Your task to perform on an android device: delete location history Image 0: 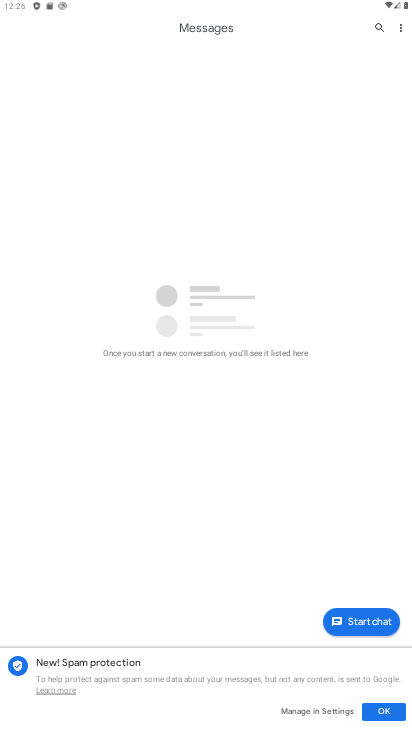
Step 0: press home button
Your task to perform on an android device: delete location history Image 1: 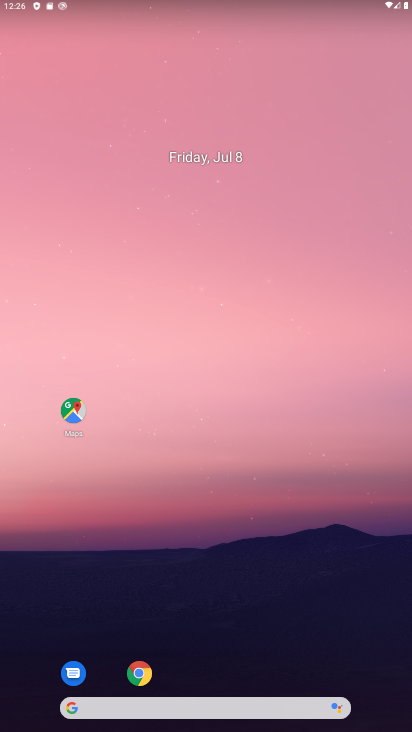
Step 1: drag from (290, 342) to (397, 112)
Your task to perform on an android device: delete location history Image 2: 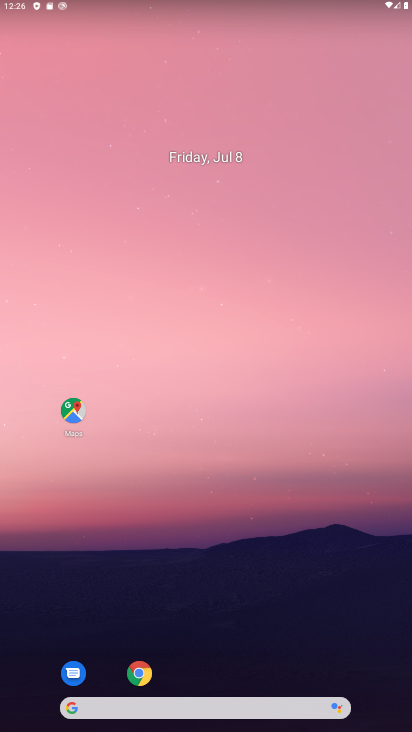
Step 2: drag from (167, 694) to (346, 131)
Your task to perform on an android device: delete location history Image 3: 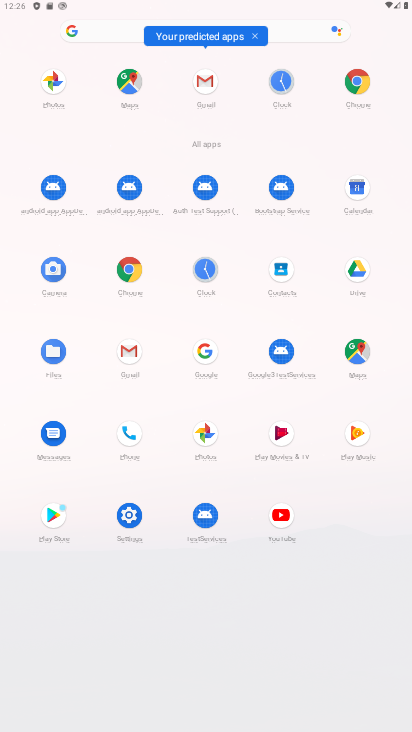
Step 3: click (136, 521)
Your task to perform on an android device: delete location history Image 4: 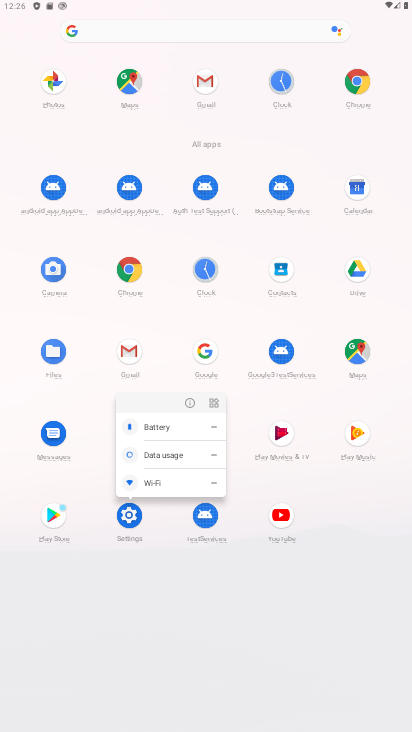
Step 4: click (131, 514)
Your task to perform on an android device: delete location history Image 5: 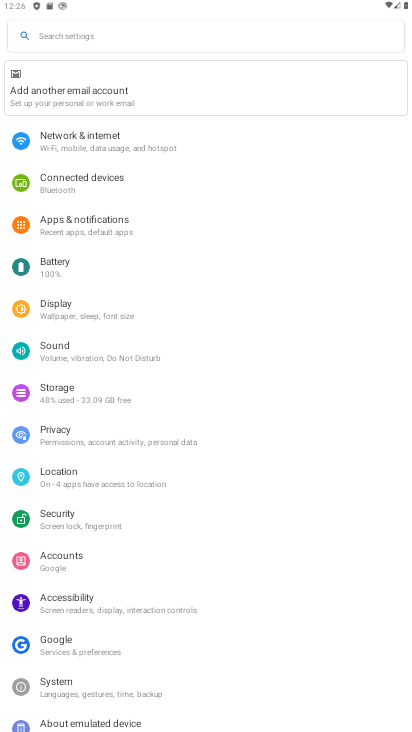
Step 5: click (61, 476)
Your task to perform on an android device: delete location history Image 6: 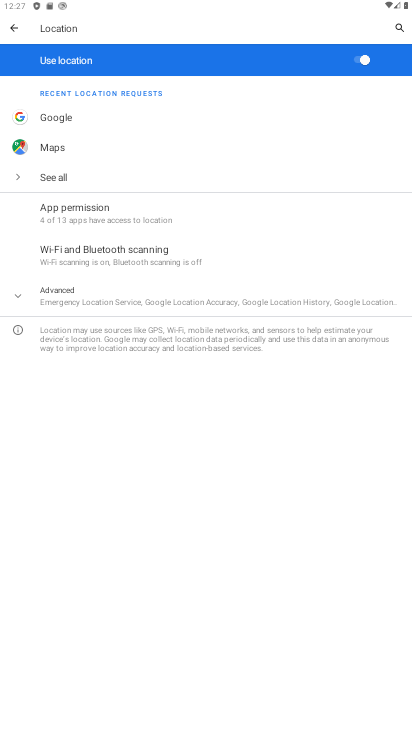
Step 6: click (103, 297)
Your task to perform on an android device: delete location history Image 7: 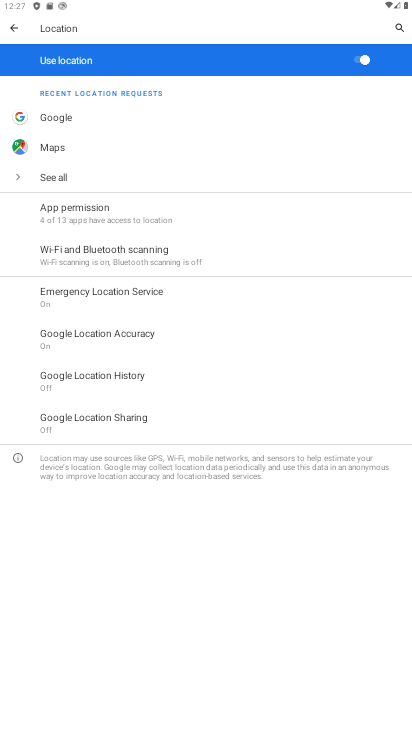
Step 7: click (147, 395)
Your task to perform on an android device: delete location history Image 8: 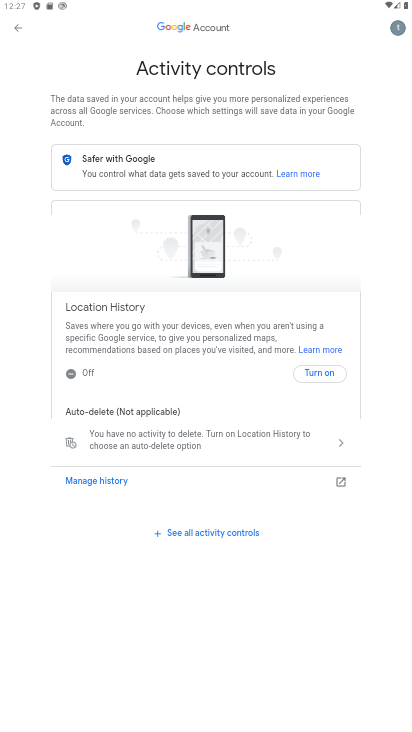
Step 8: click (101, 479)
Your task to perform on an android device: delete location history Image 9: 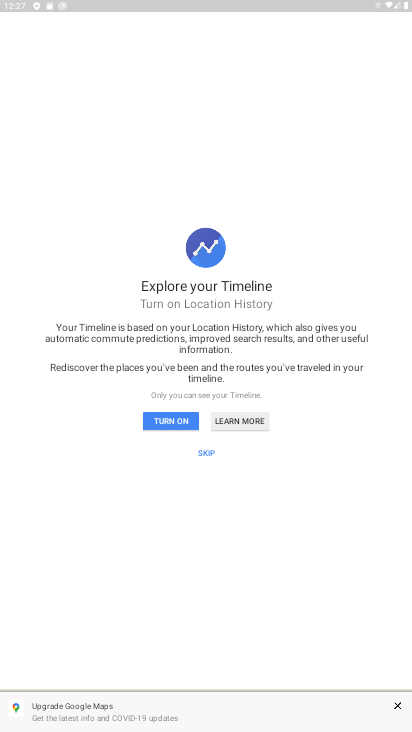
Step 9: click (202, 458)
Your task to perform on an android device: delete location history Image 10: 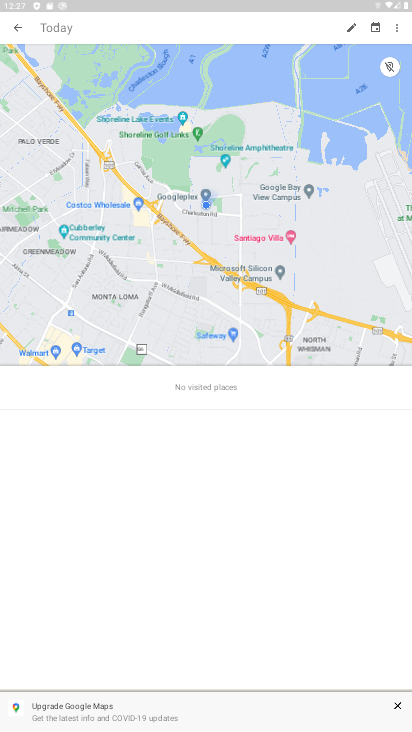
Step 10: click (397, 27)
Your task to perform on an android device: delete location history Image 11: 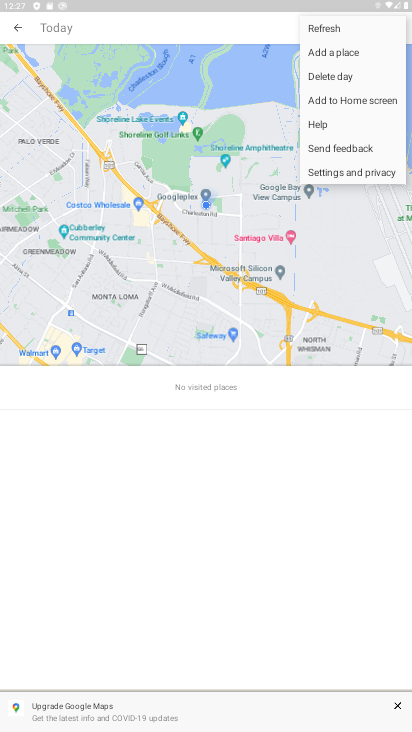
Step 11: click (354, 78)
Your task to perform on an android device: delete location history Image 12: 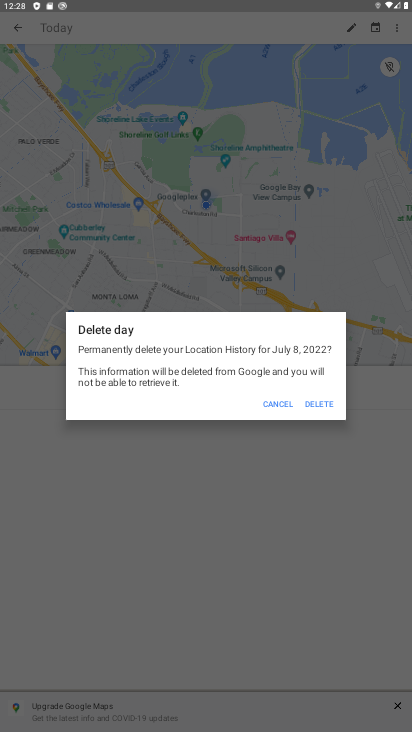
Step 12: click (324, 408)
Your task to perform on an android device: delete location history Image 13: 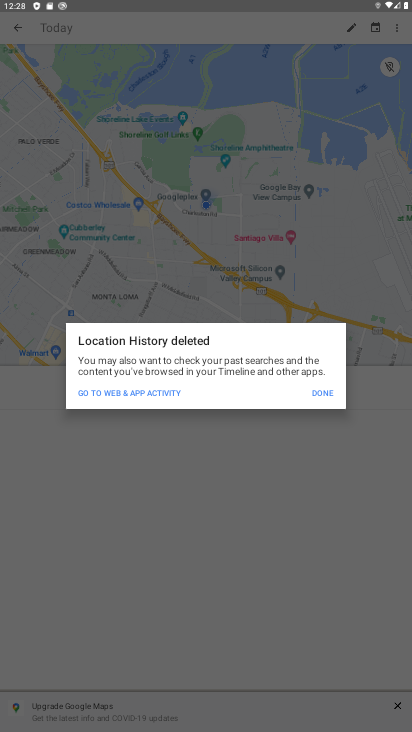
Step 13: click (316, 395)
Your task to perform on an android device: delete location history Image 14: 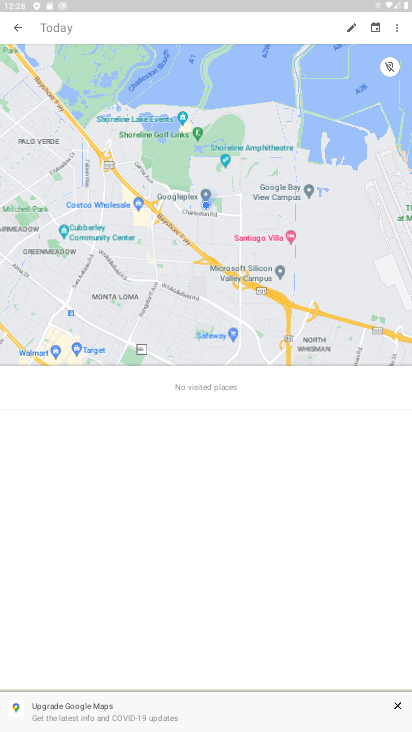
Step 14: task complete